Your task to perform on an android device: toggle notification dots Image 0: 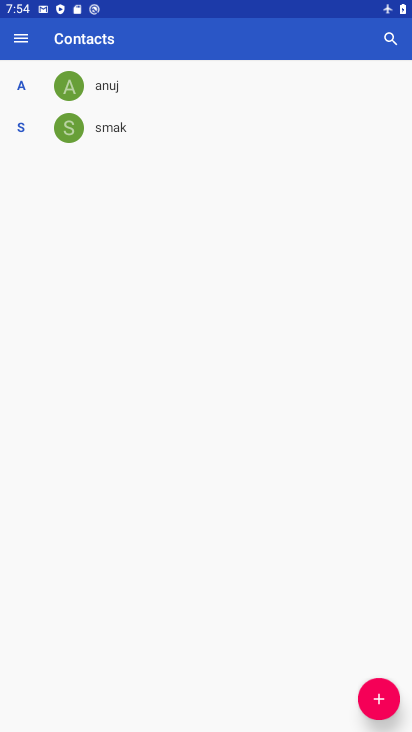
Step 0: press home button
Your task to perform on an android device: toggle notification dots Image 1: 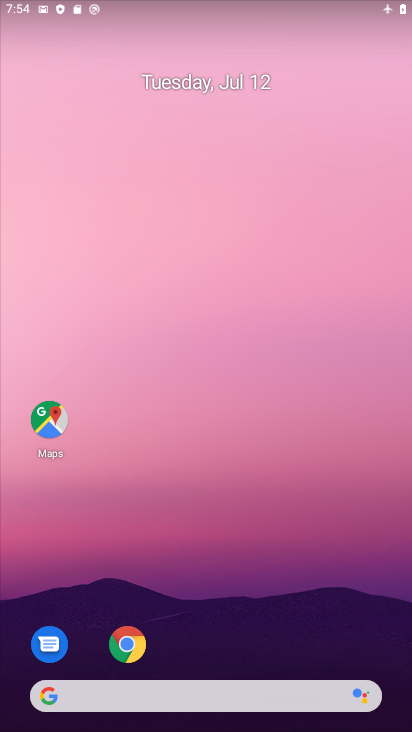
Step 1: drag from (217, 575) to (232, 221)
Your task to perform on an android device: toggle notification dots Image 2: 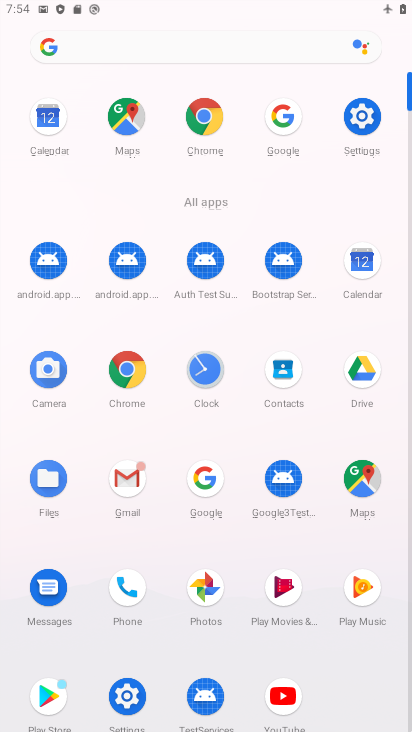
Step 2: click (350, 127)
Your task to perform on an android device: toggle notification dots Image 3: 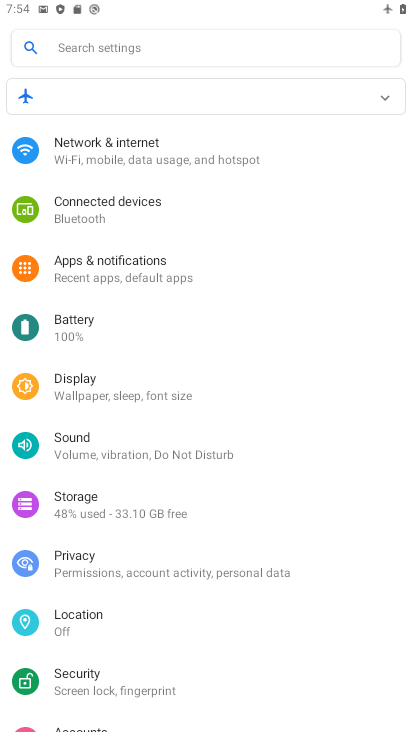
Step 3: click (175, 275)
Your task to perform on an android device: toggle notification dots Image 4: 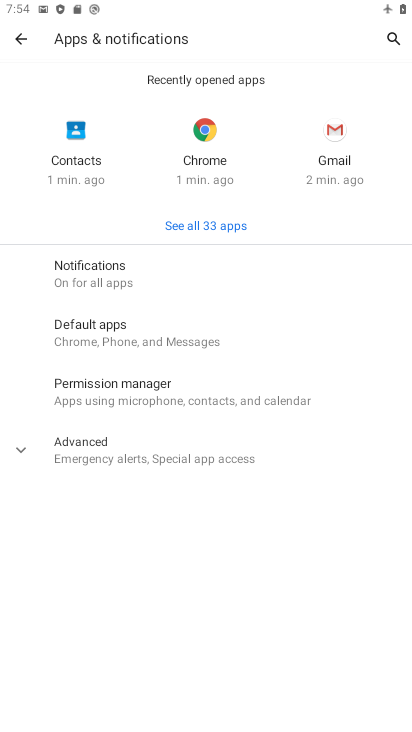
Step 4: click (98, 278)
Your task to perform on an android device: toggle notification dots Image 5: 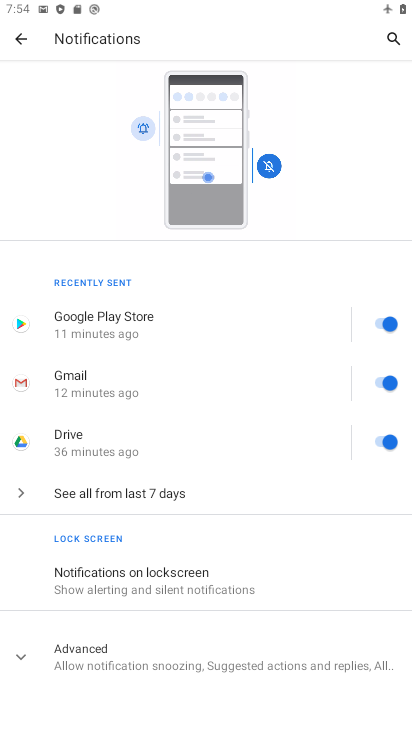
Step 5: drag from (259, 637) to (271, 315)
Your task to perform on an android device: toggle notification dots Image 6: 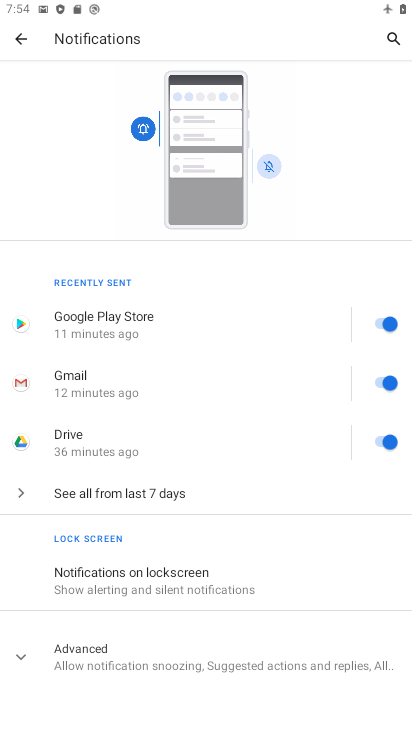
Step 6: click (224, 670)
Your task to perform on an android device: toggle notification dots Image 7: 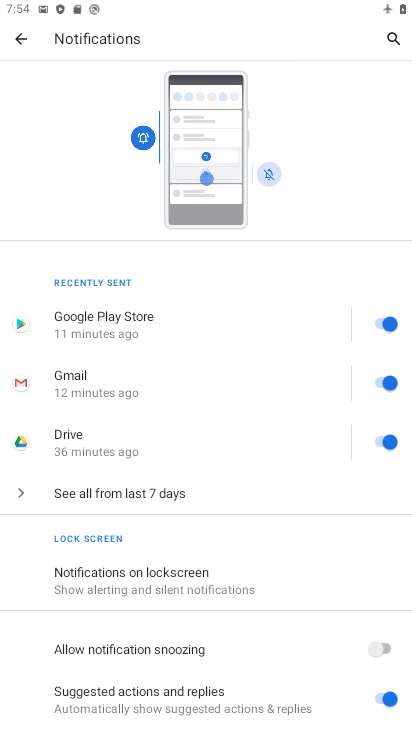
Step 7: drag from (275, 670) to (322, 283)
Your task to perform on an android device: toggle notification dots Image 8: 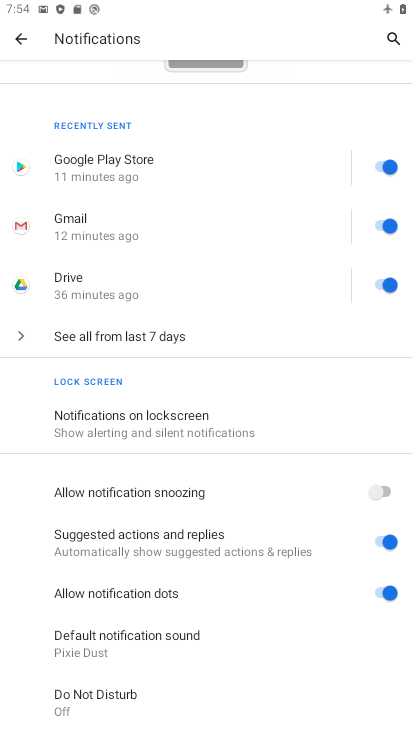
Step 8: click (380, 590)
Your task to perform on an android device: toggle notification dots Image 9: 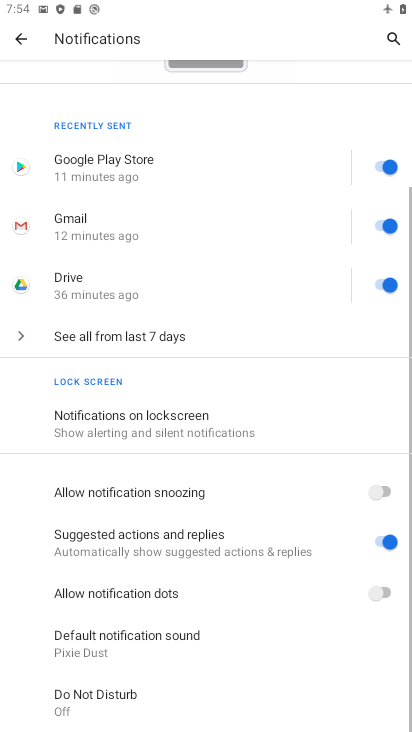
Step 9: task complete